Your task to perform on an android device: check data usage Image 0: 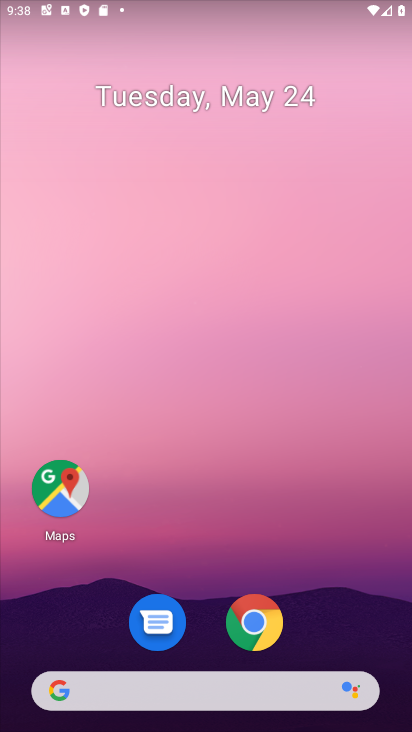
Step 0: press home button
Your task to perform on an android device: check data usage Image 1: 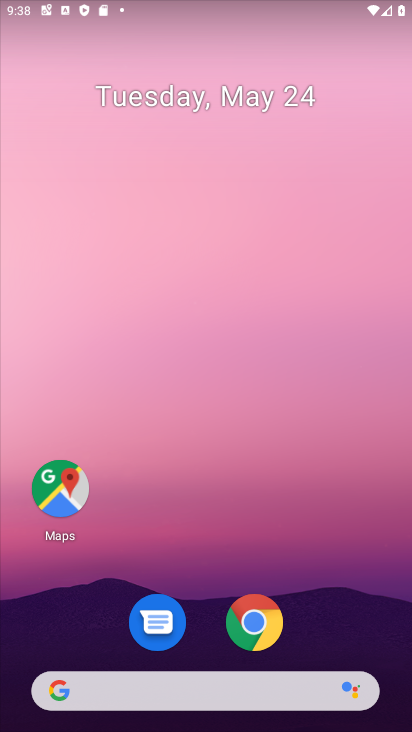
Step 1: drag from (254, 720) to (276, 345)
Your task to perform on an android device: check data usage Image 2: 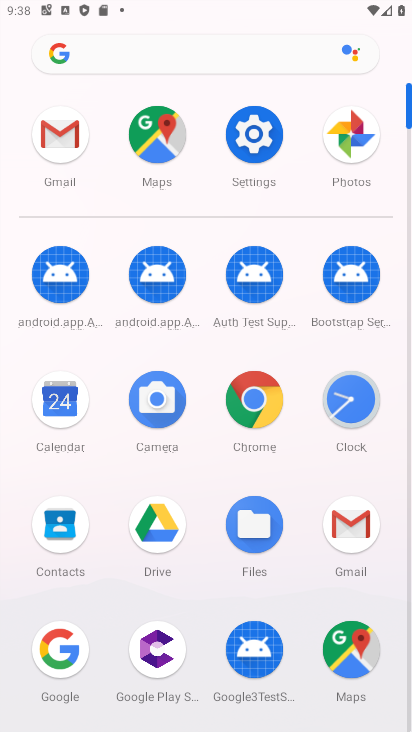
Step 2: click (259, 142)
Your task to perform on an android device: check data usage Image 3: 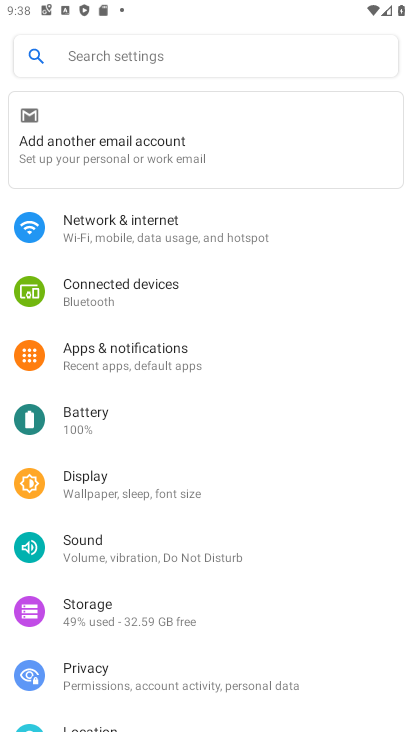
Step 3: click (163, 52)
Your task to perform on an android device: check data usage Image 4: 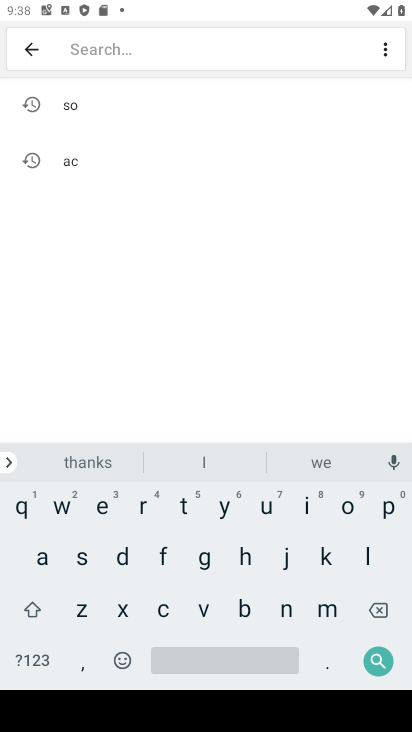
Step 4: click (121, 563)
Your task to perform on an android device: check data usage Image 5: 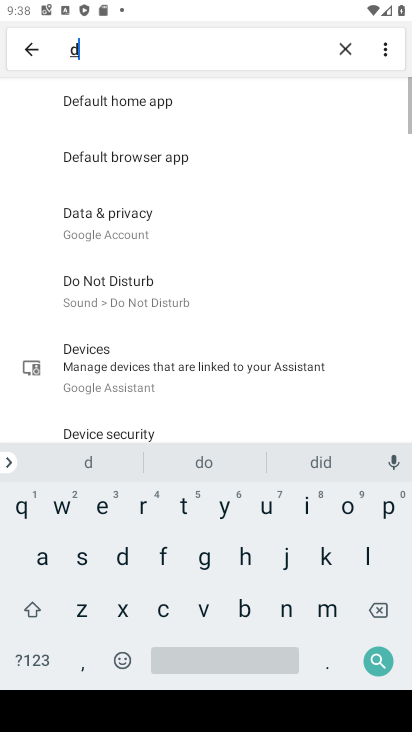
Step 5: click (41, 558)
Your task to perform on an android device: check data usage Image 6: 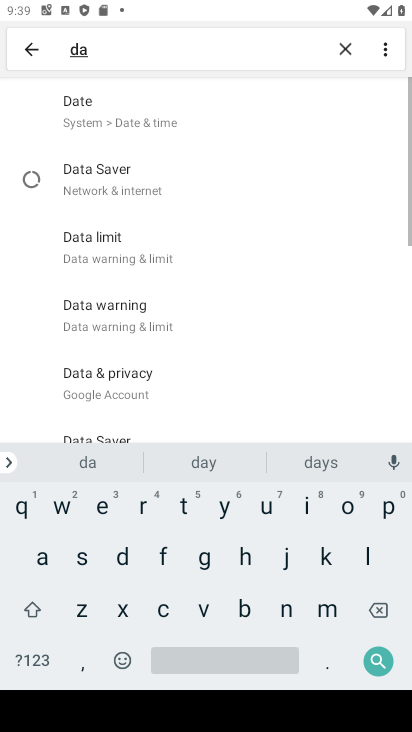
Step 6: click (181, 511)
Your task to perform on an android device: check data usage Image 7: 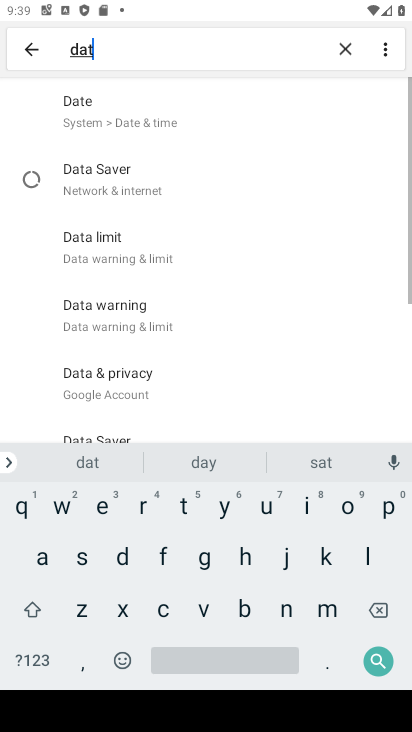
Step 7: click (40, 561)
Your task to perform on an android device: check data usage Image 8: 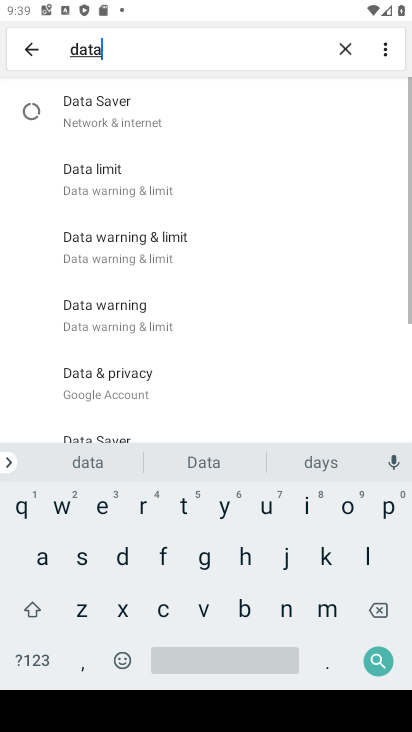
Step 8: click (196, 655)
Your task to perform on an android device: check data usage Image 9: 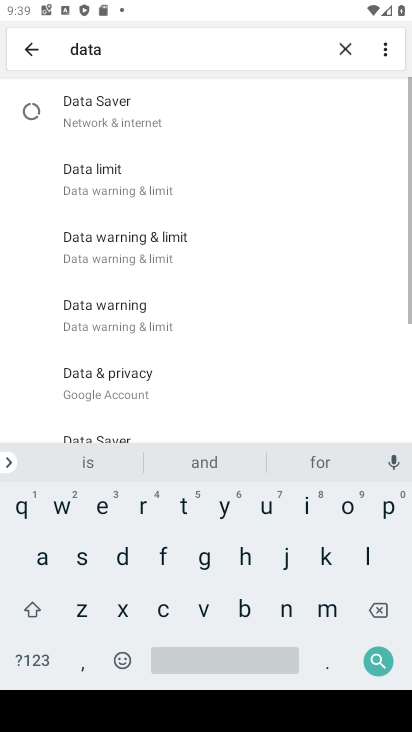
Step 9: click (262, 508)
Your task to perform on an android device: check data usage Image 10: 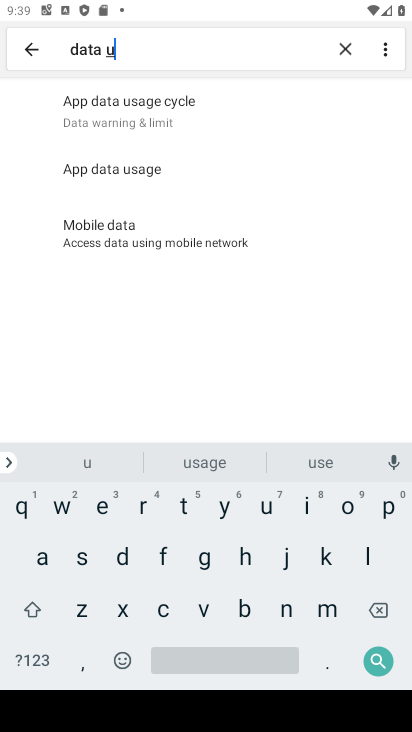
Step 10: click (126, 176)
Your task to perform on an android device: check data usage Image 11: 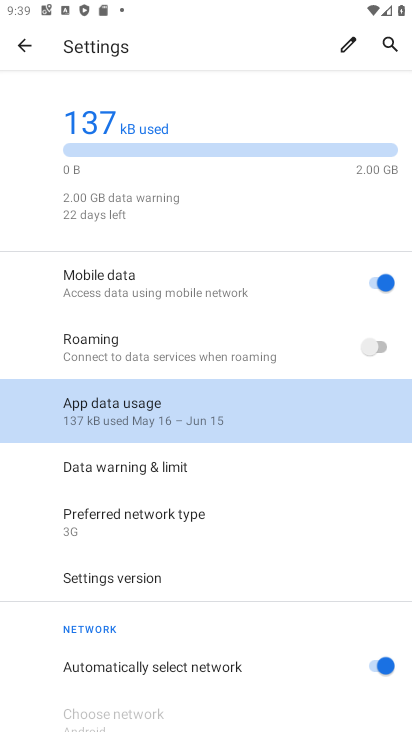
Step 11: click (145, 409)
Your task to perform on an android device: check data usage Image 12: 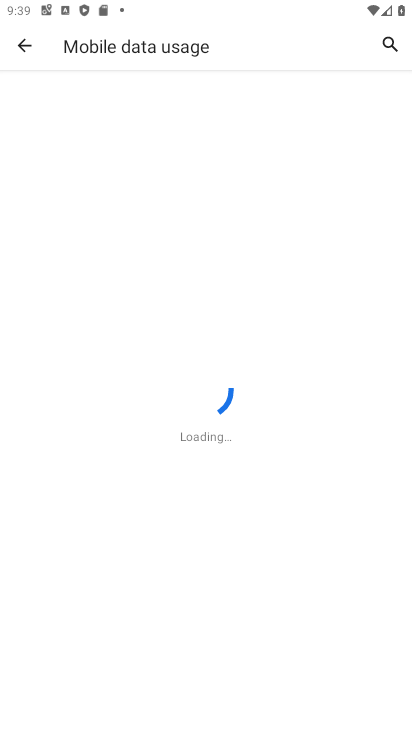
Step 12: task complete